Your task to perform on an android device: open wifi settings Image 0: 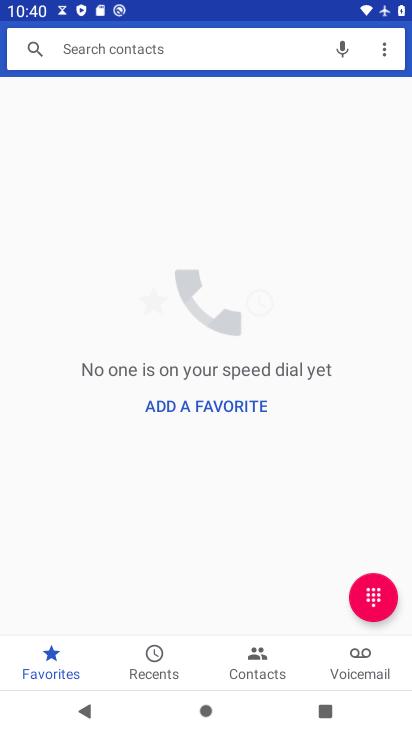
Step 0: press back button
Your task to perform on an android device: open wifi settings Image 1: 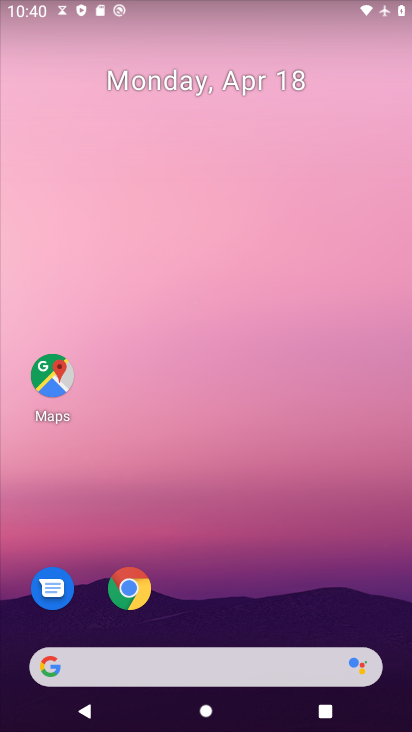
Step 1: drag from (254, 439) to (139, 34)
Your task to perform on an android device: open wifi settings Image 2: 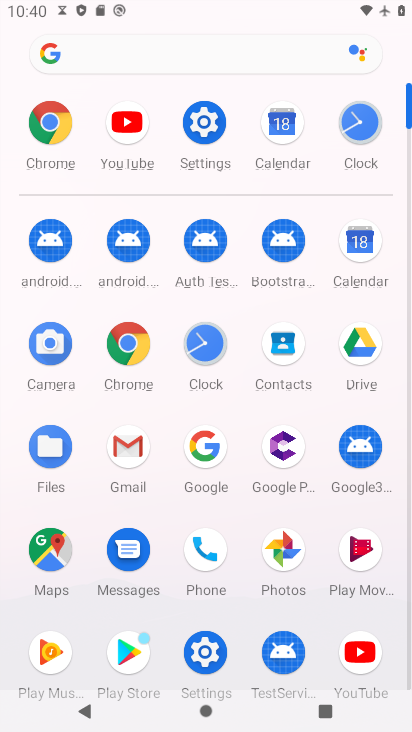
Step 2: click (202, 120)
Your task to perform on an android device: open wifi settings Image 3: 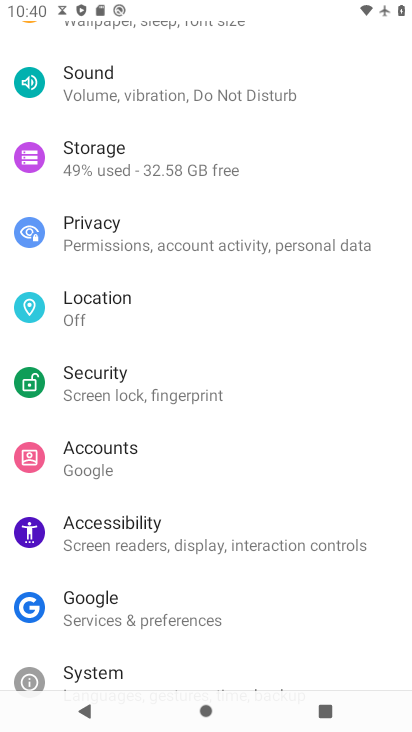
Step 3: drag from (246, 113) to (288, 427)
Your task to perform on an android device: open wifi settings Image 4: 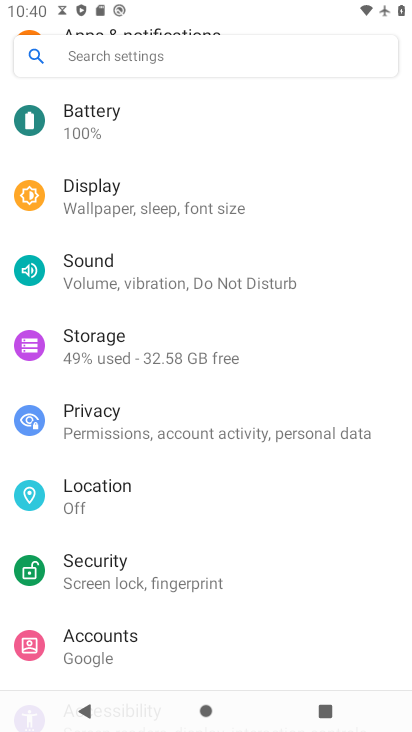
Step 4: drag from (223, 156) to (249, 480)
Your task to perform on an android device: open wifi settings Image 5: 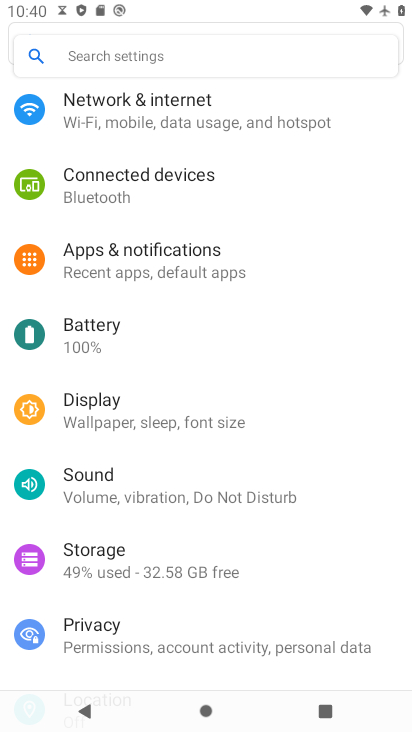
Step 5: drag from (234, 247) to (263, 526)
Your task to perform on an android device: open wifi settings Image 6: 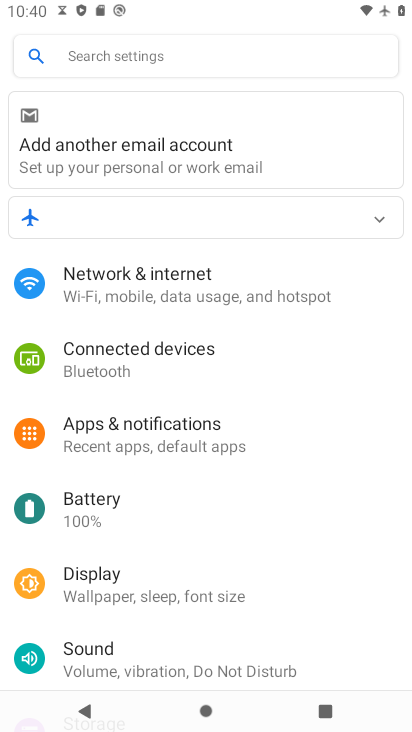
Step 6: click (184, 284)
Your task to perform on an android device: open wifi settings Image 7: 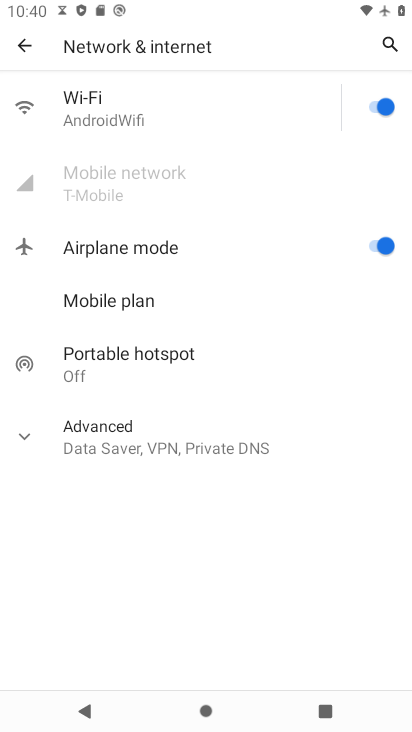
Step 7: click (115, 100)
Your task to perform on an android device: open wifi settings Image 8: 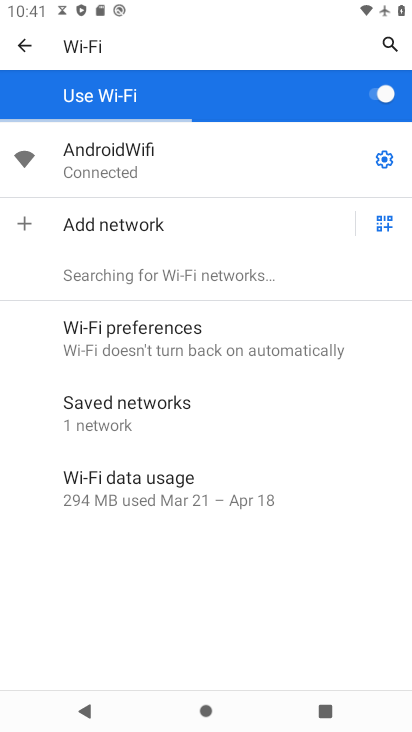
Step 8: task complete